Your task to perform on an android device: Do I have any events this weekend? Image 0: 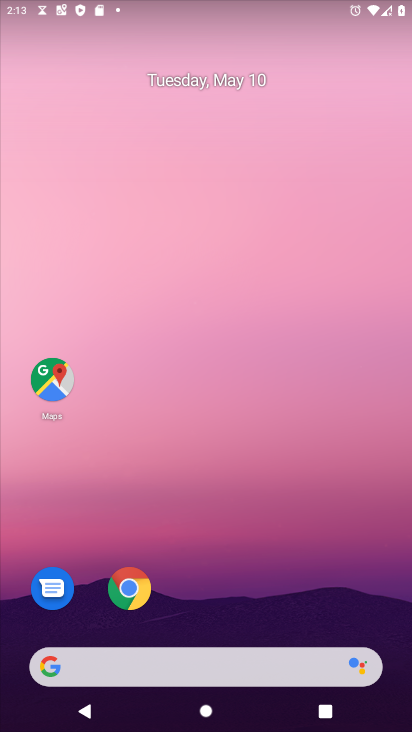
Step 0: drag from (246, 581) to (271, 169)
Your task to perform on an android device: Do I have any events this weekend? Image 1: 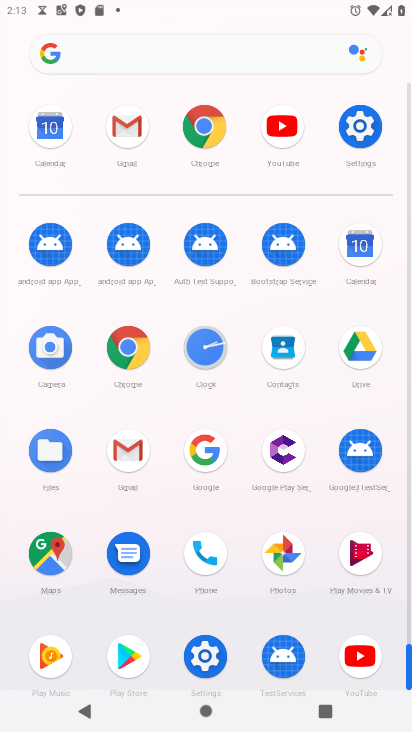
Step 1: drag from (140, 611) to (160, 498)
Your task to perform on an android device: Do I have any events this weekend? Image 2: 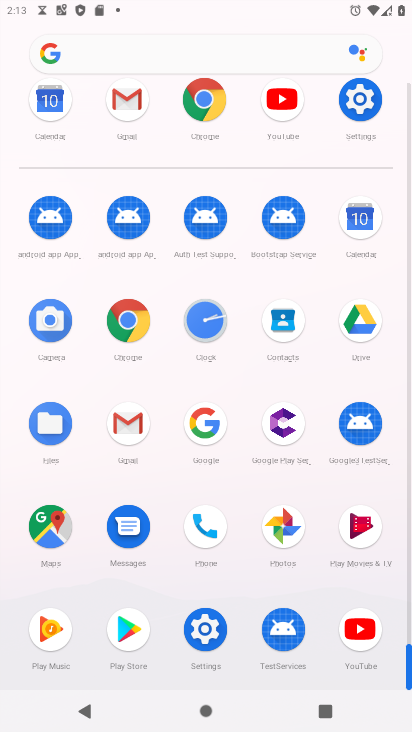
Step 2: click (350, 206)
Your task to perform on an android device: Do I have any events this weekend? Image 3: 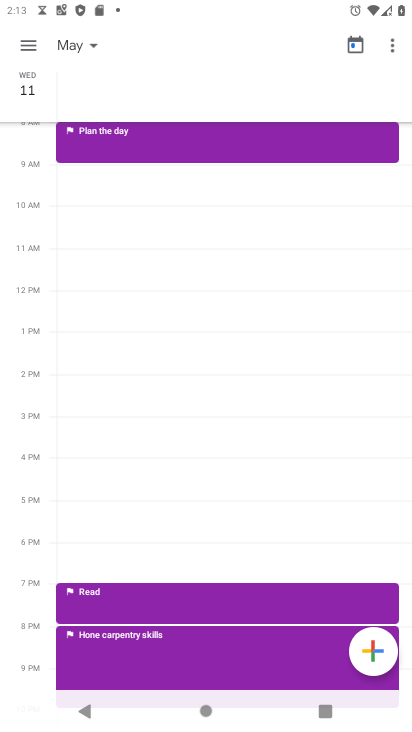
Step 3: click (25, 40)
Your task to perform on an android device: Do I have any events this weekend? Image 4: 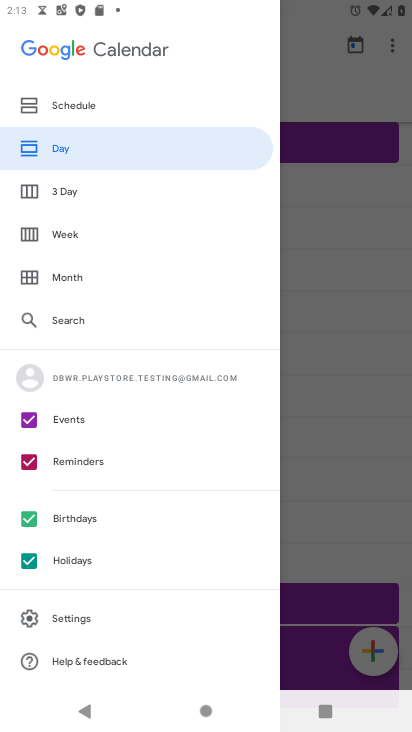
Step 4: click (77, 239)
Your task to perform on an android device: Do I have any events this weekend? Image 5: 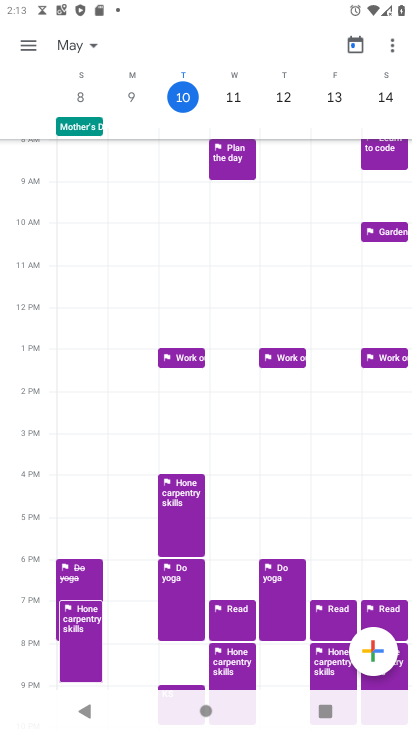
Step 5: click (386, 150)
Your task to perform on an android device: Do I have any events this weekend? Image 6: 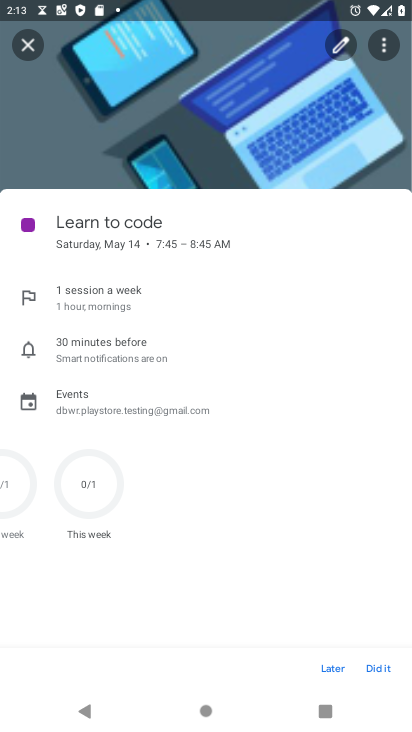
Step 6: task complete